Your task to perform on an android device: Open notification settings Image 0: 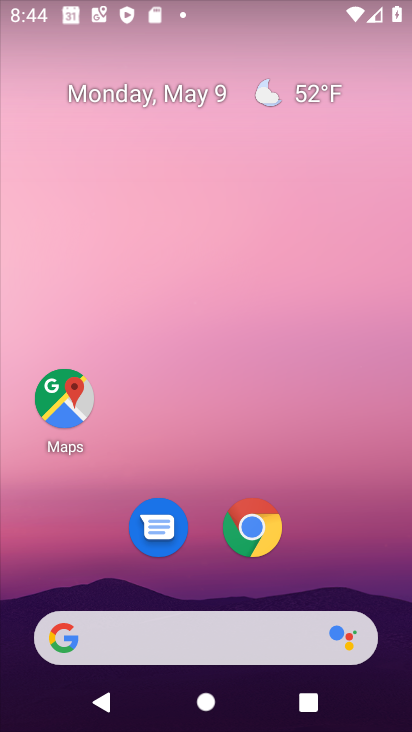
Step 0: drag from (228, 573) to (247, 74)
Your task to perform on an android device: Open notification settings Image 1: 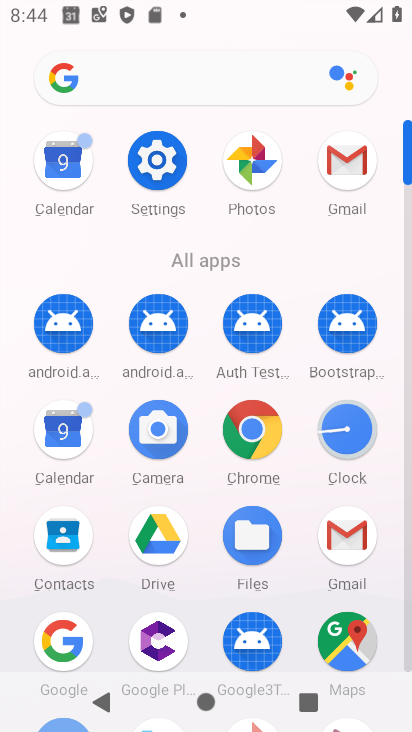
Step 1: click (155, 169)
Your task to perform on an android device: Open notification settings Image 2: 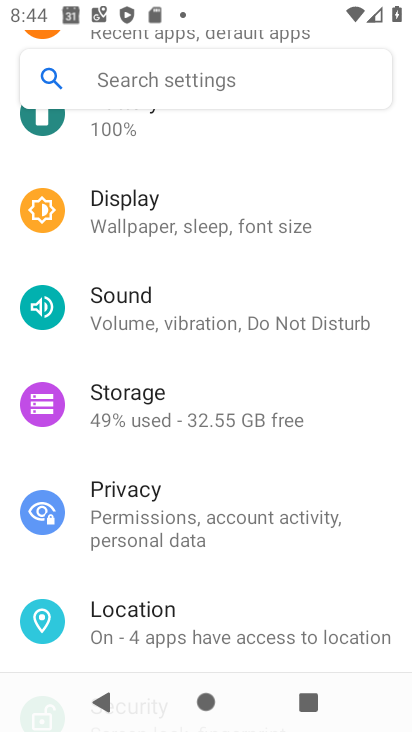
Step 2: drag from (164, 200) to (192, 557)
Your task to perform on an android device: Open notification settings Image 3: 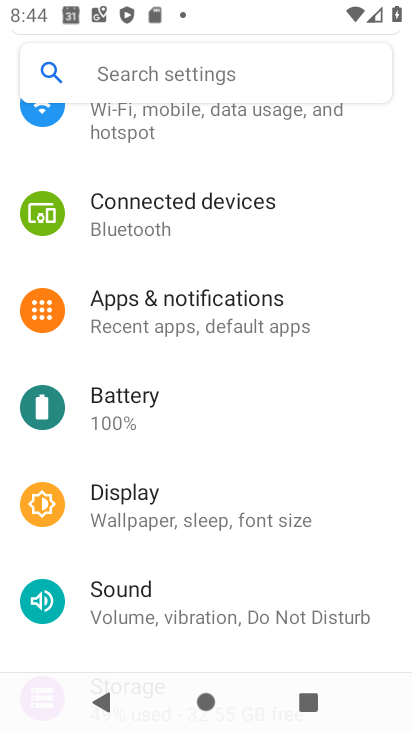
Step 3: click (191, 314)
Your task to perform on an android device: Open notification settings Image 4: 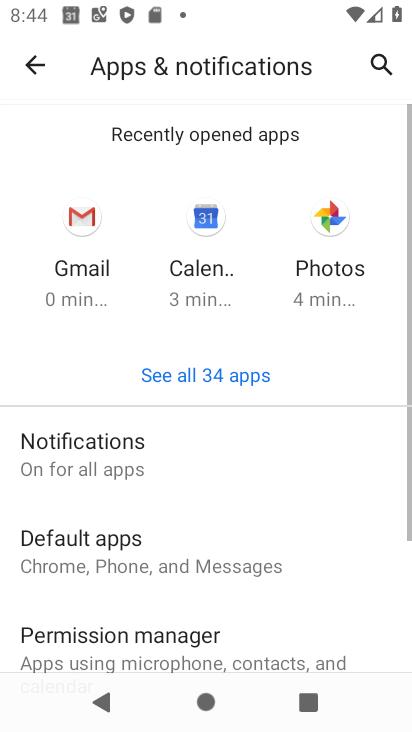
Step 4: click (131, 439)
Your task to perform on an android device: Open notification settings Image 5: 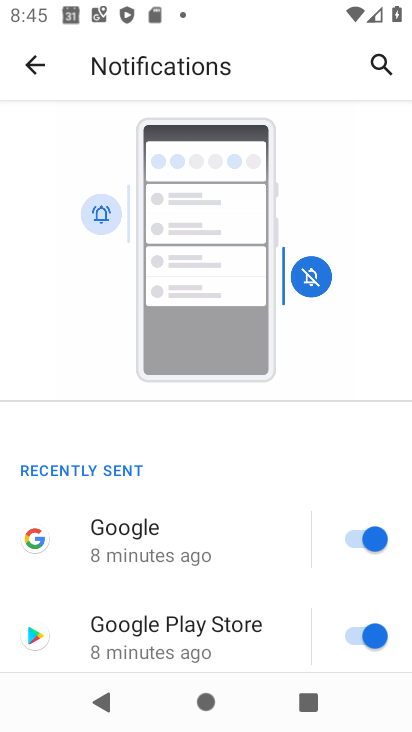
Step 5: task complete